Your task to perform on an android device: move an email to a new category in the gmail app Image 0: 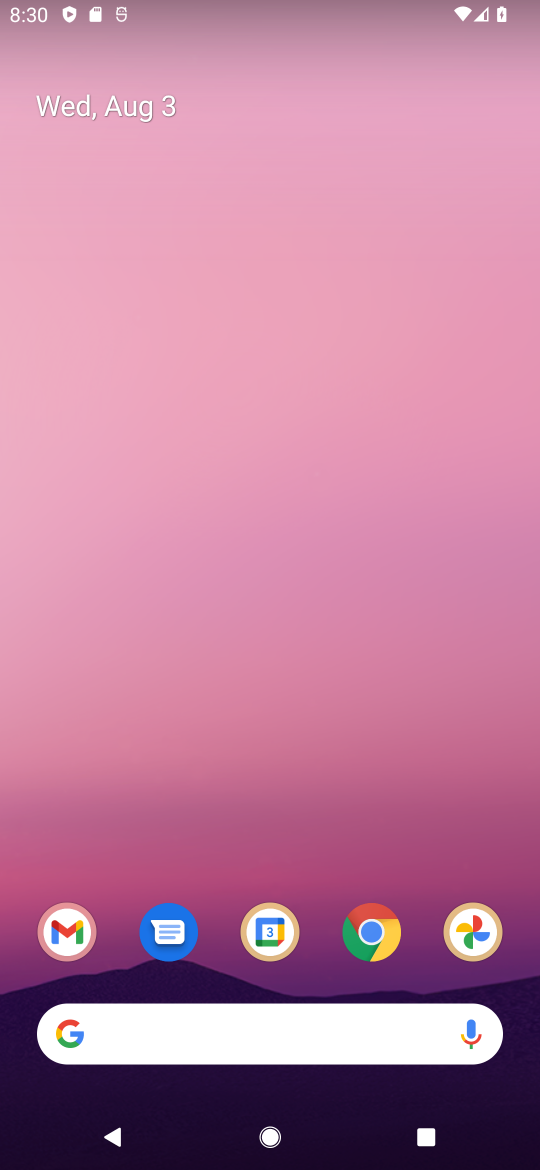
Step 0: drag from (243, 972) to (261, 229)
Your task to perform on an android device: move an email to a new category in the gmail app Image 1: 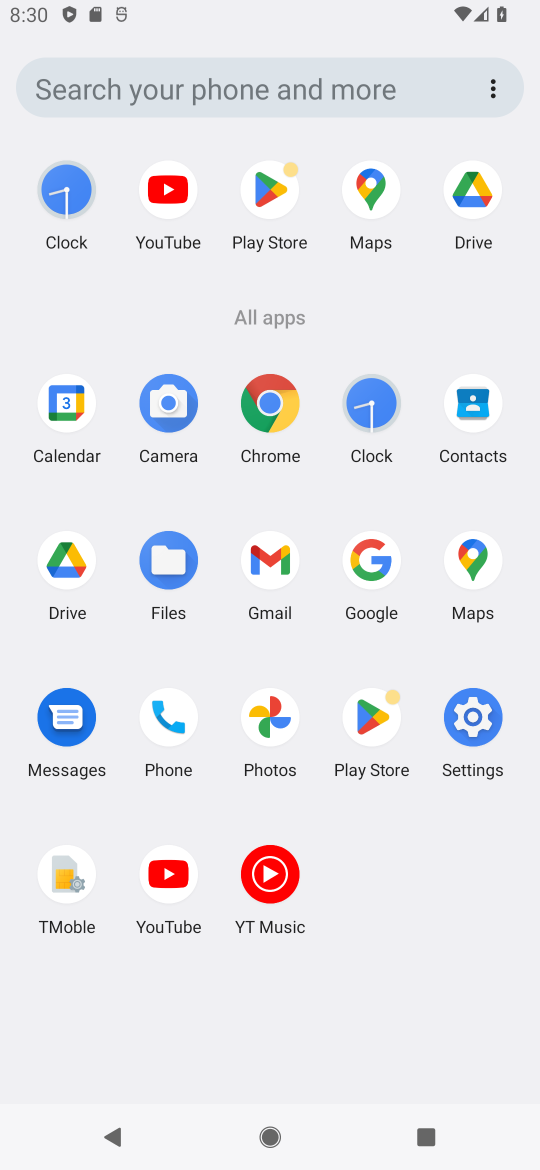
Step 1: click (280, 558)
Your task to perform on an android device: move an email to a new category in the gmail app Image 2: 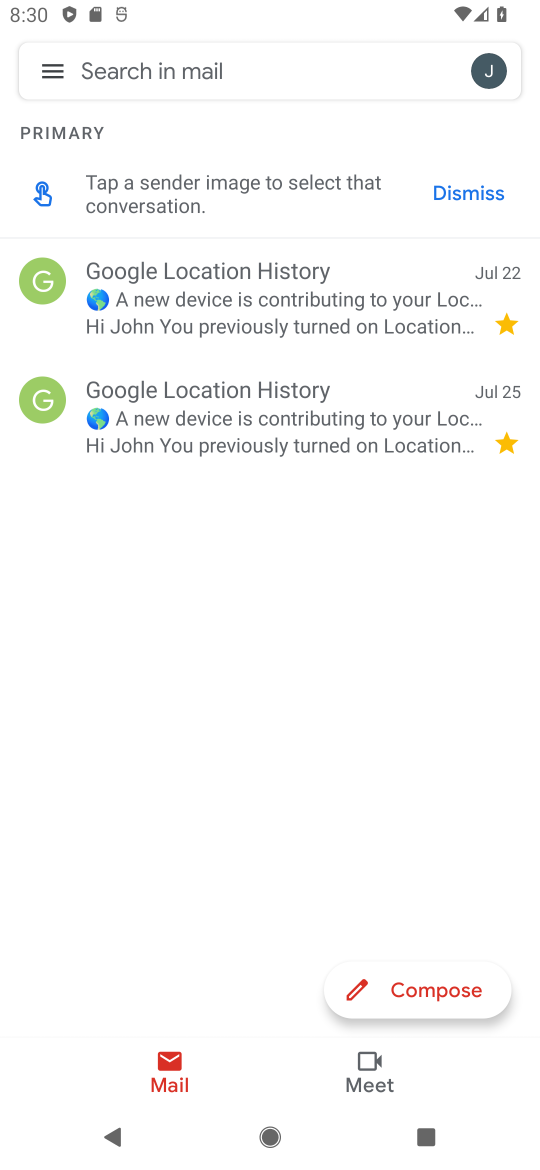
Step 2: click (257, 293)
Your task to perform on an android device: move an email to a new category in the gmail app Image 3: 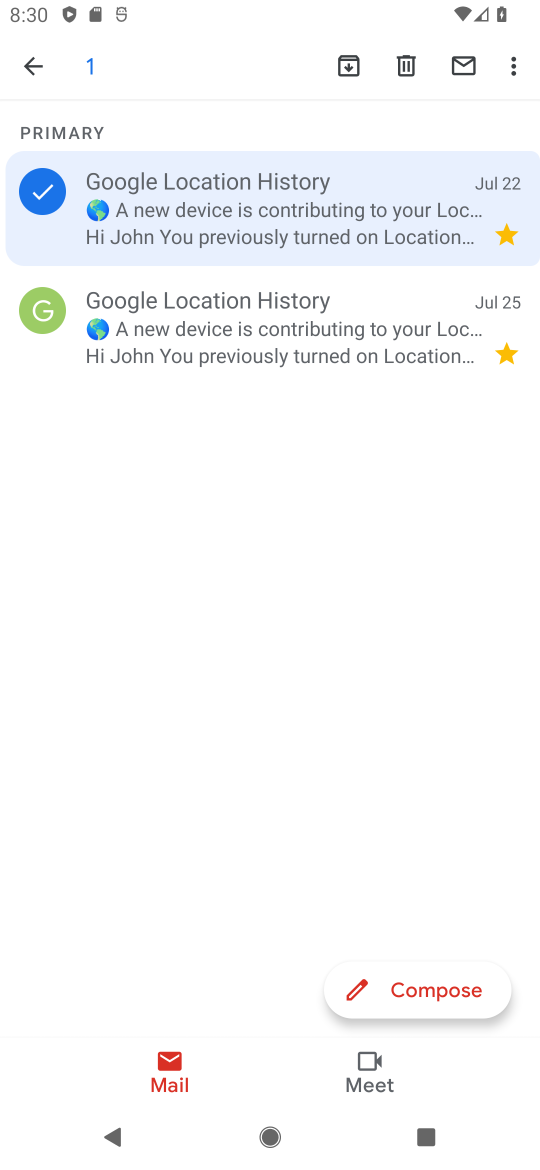
Step 3: click (510, 63)
Your task to perform on an android device: move an email to a new category in the gmail app Image 4: 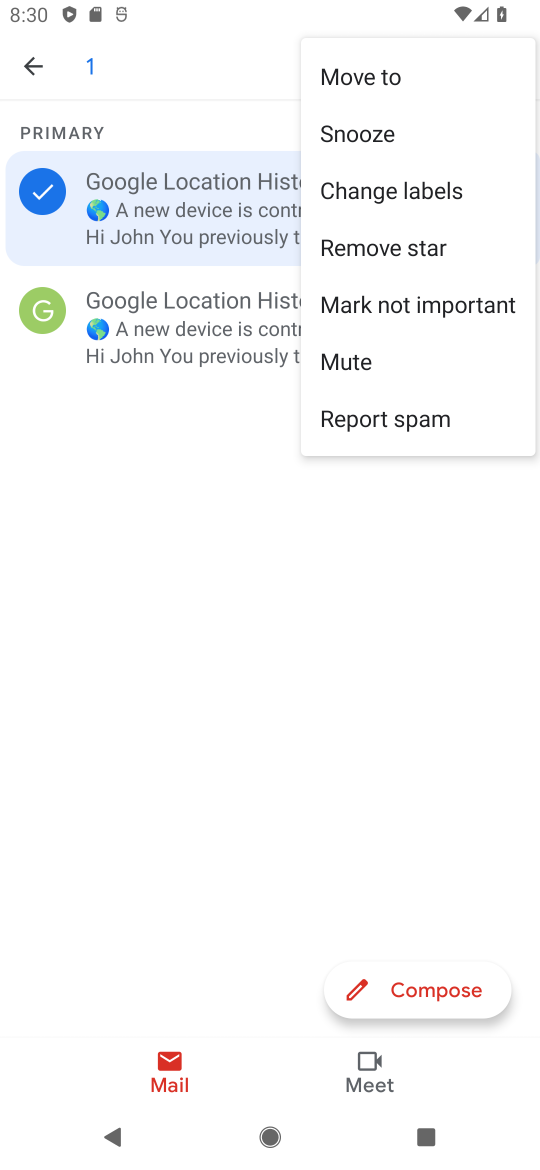
Step 4: click (359, 77)
Your task to perform on an android device: move an email to a new category in the gmail app Image 5: 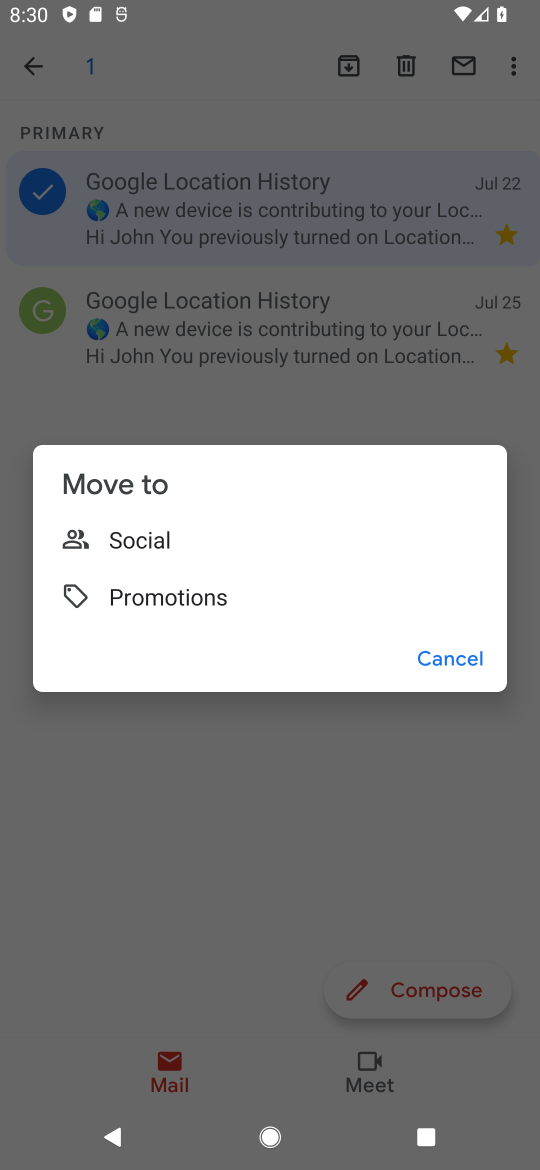
Step 5: click (177, 592)
Your task to perform on an android device: move an email to a new category in the gmail app Image 6: 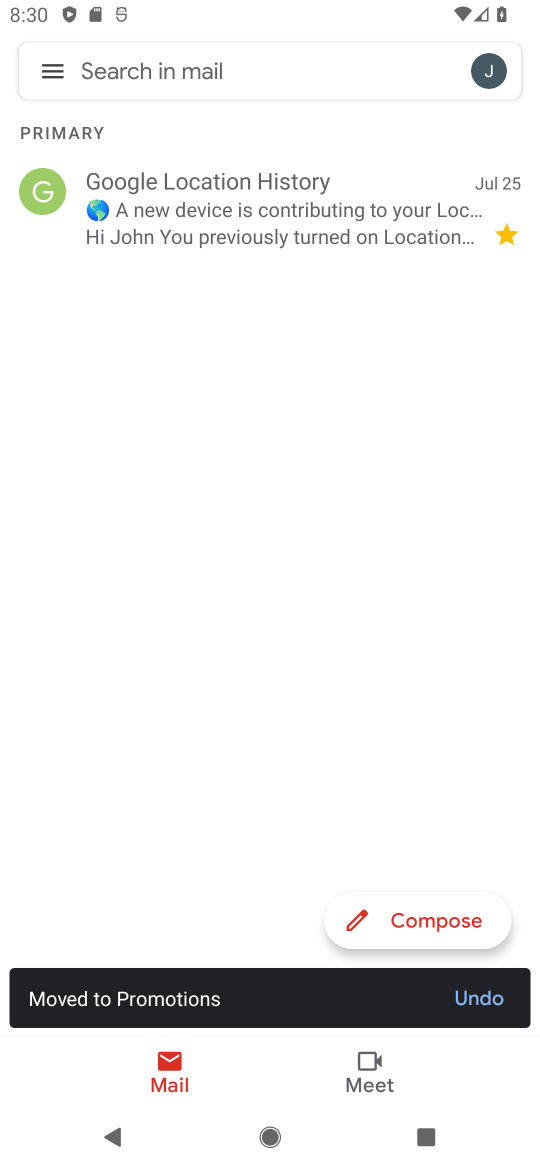
Step 6: task complete